Your task to perform on an android device: turn off picture-in-picture Image 0: 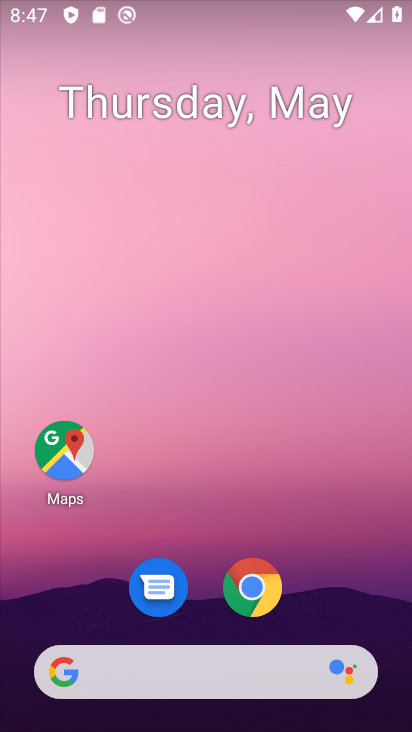
Step 0: drag from (381, 460) to (382, 0)
Your task to perform on an android device: turn off picture-in-picture Image 1: 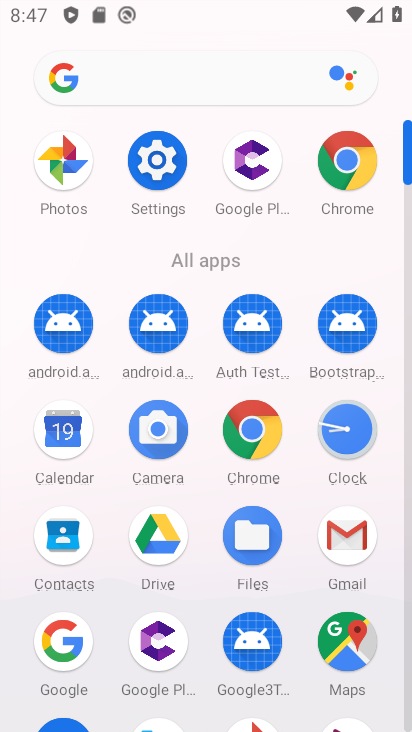
Step 1: click (363, 179)
Your task to perform on an android device: turn off picture-in-picture Image 2: 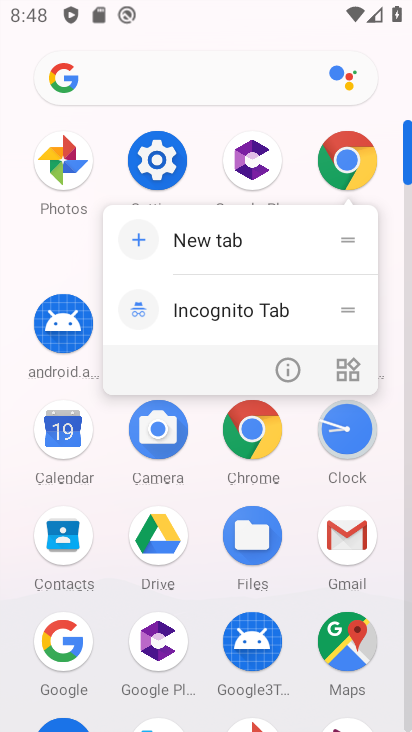
Step 2: click (281, 381)
Your task to perform on an android device: turn off picture-in-picture Image 3: 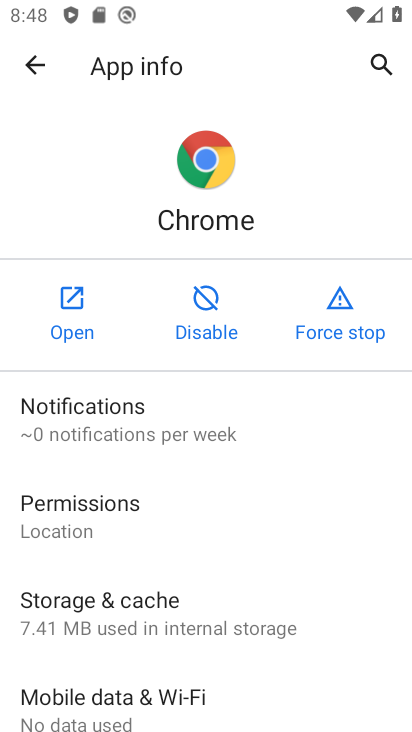
Step 3: drag from (257, 605) to (237, 238)
Your task to perform on an android device: turn off picture-in-picture Image 4: 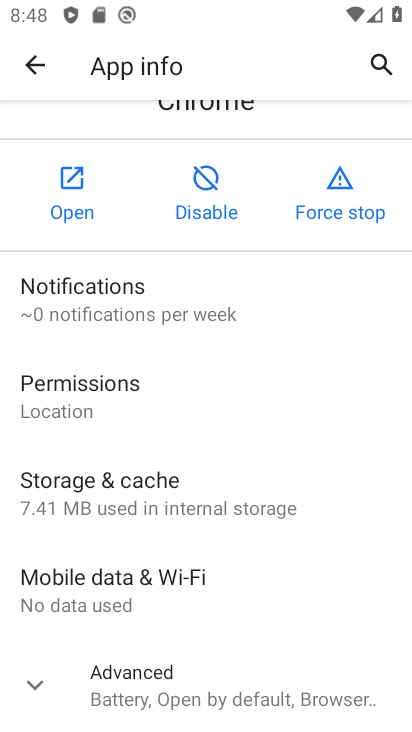
Step 4: click (167, 675)
Your task to perform on an android device: turn off picture-in-picture Image 5: 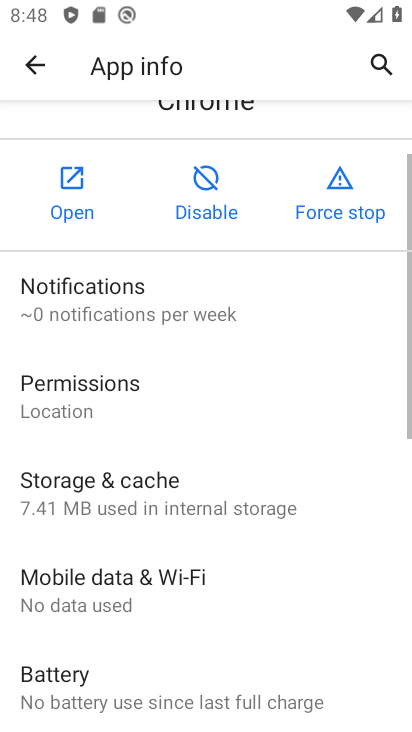
Step 5: drag from (170, 667) to (237, 281)
Your task to perform on an android device: turn off picture-in-picture Image 6: 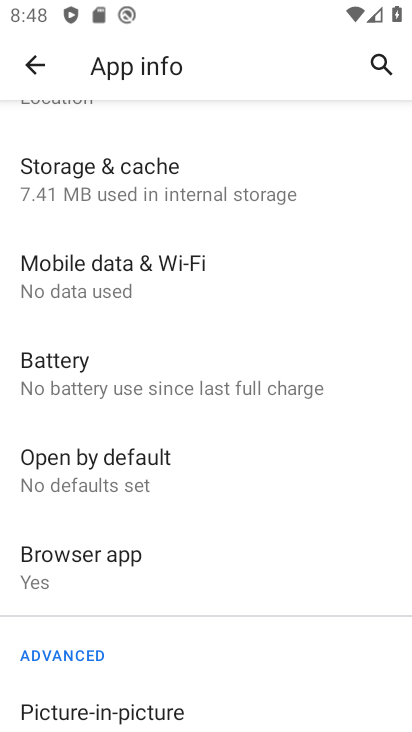
Step 6: drag from (201, 635) to (220, 237)
Your task to perform on an android device: turn off picture-in-picture Image 7: 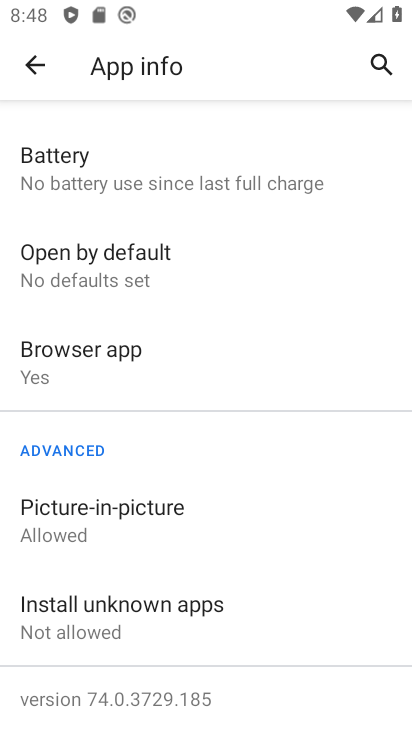
Step 7: click (113, 533)
Your task to perform on an android device: turn off picture-in-picture Image 8: 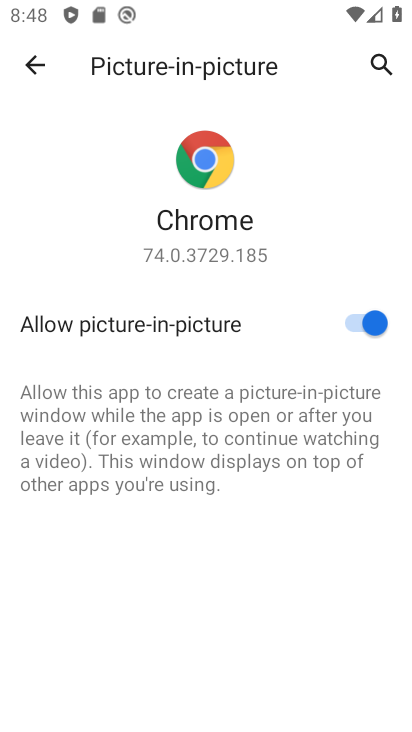
Step 8: click (367, 330)
Your task to perform on an android device: turn off picture-in-picture Image 9: 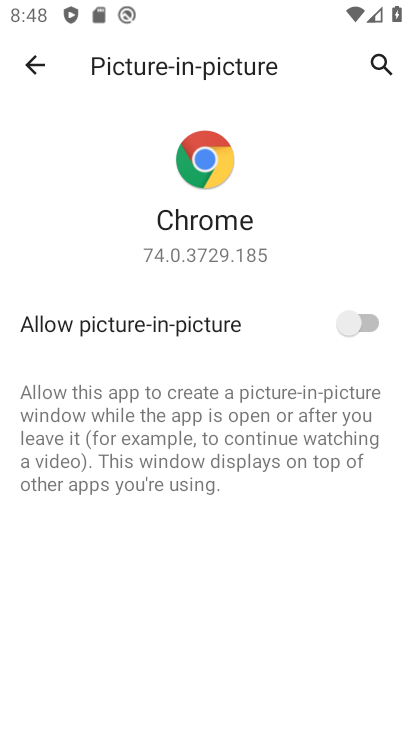
Step 9: task complete